Your task to perform on an android device: open device folders in google photos Image 0: 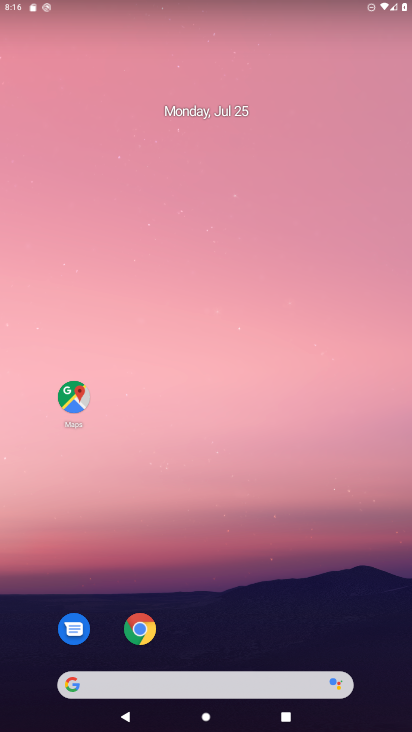
Step 0: drag from (227, 616) to (227, 155)
Your task to perform on an android device: open device folders in google photos Image 1: 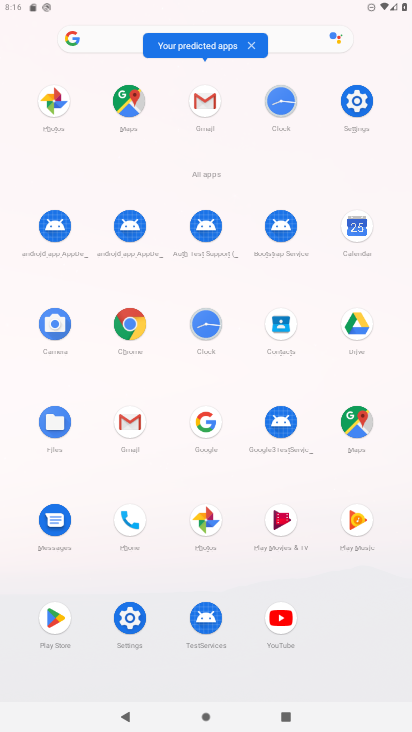
Step 1: click (53, 97)
Your task to perform on an android device: open device folders in google photos Image 2: 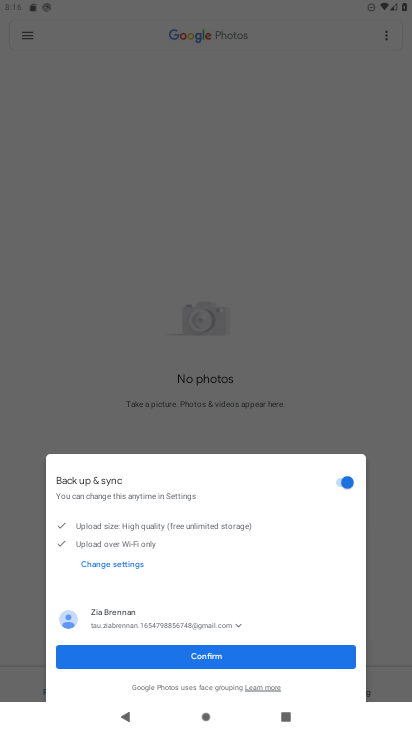
Step 2: click (118, 655)
Your task to perform on an android device: open device folders in google photos Image 3: 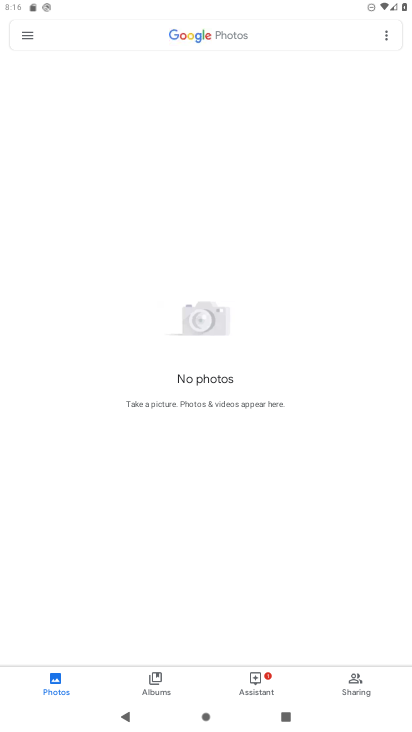
Step 3: click (21, 42)
Your task to perform on an android device: open device folders in google photos Image 4: 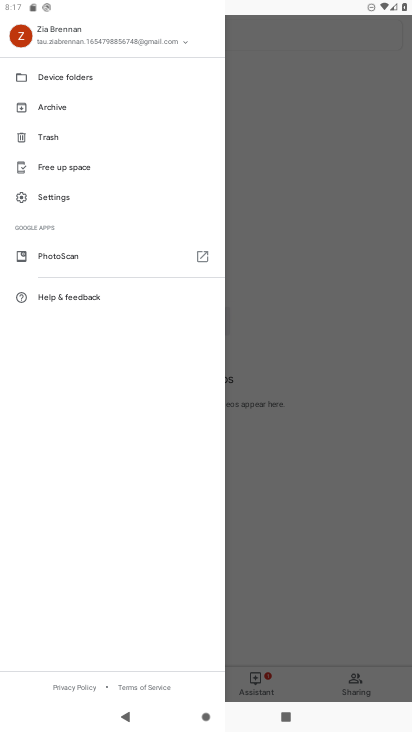
Step 4: click (50, 83)
Your task to perform on an android device: open device folders in google photos Image 5: 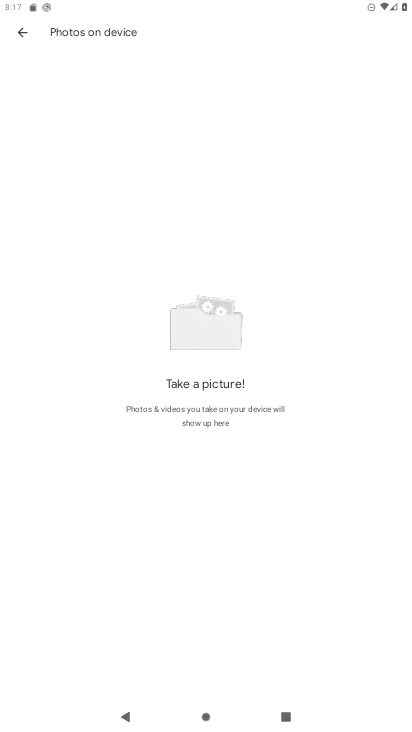
Step 5: task complete